Your task to perform on an android device: Go to settings Image 0: 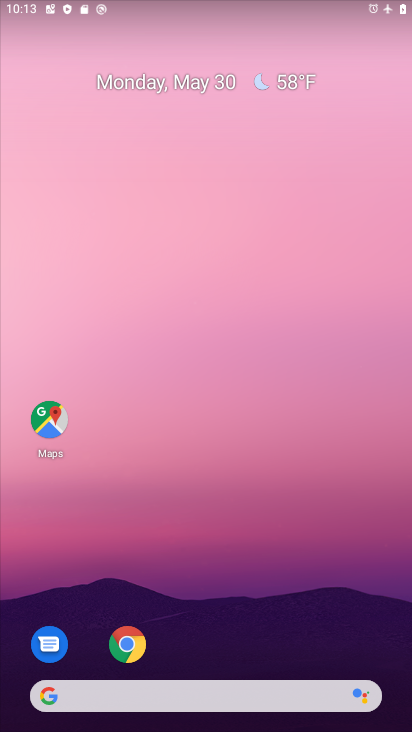
Step 0: drag from (373, 648) to (360, 105)
Your task to perform on an android device: Go to settings Image 1: 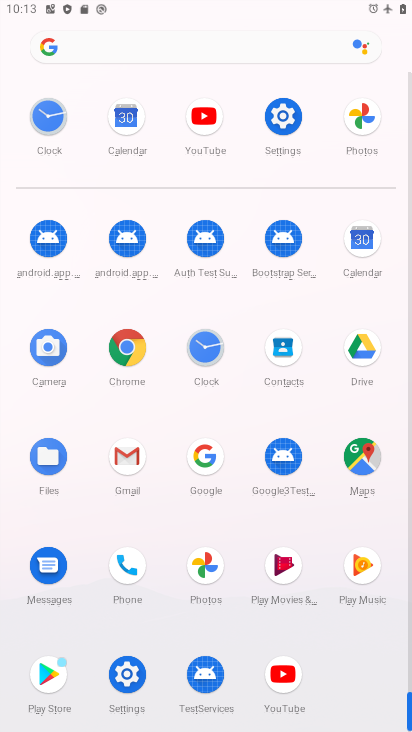
Step 1: click (121, 669)
Your task to perform on an android device: Go to settings Image 2: 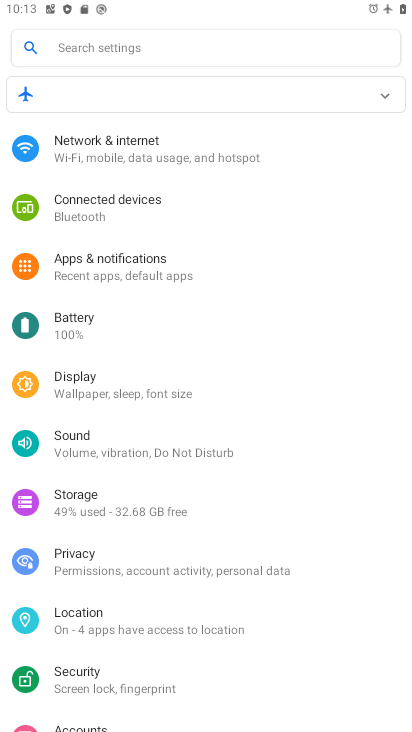
Step 2: task complete